Your task to perform on an android device: Show the shopping cart on target.com. Image 0: 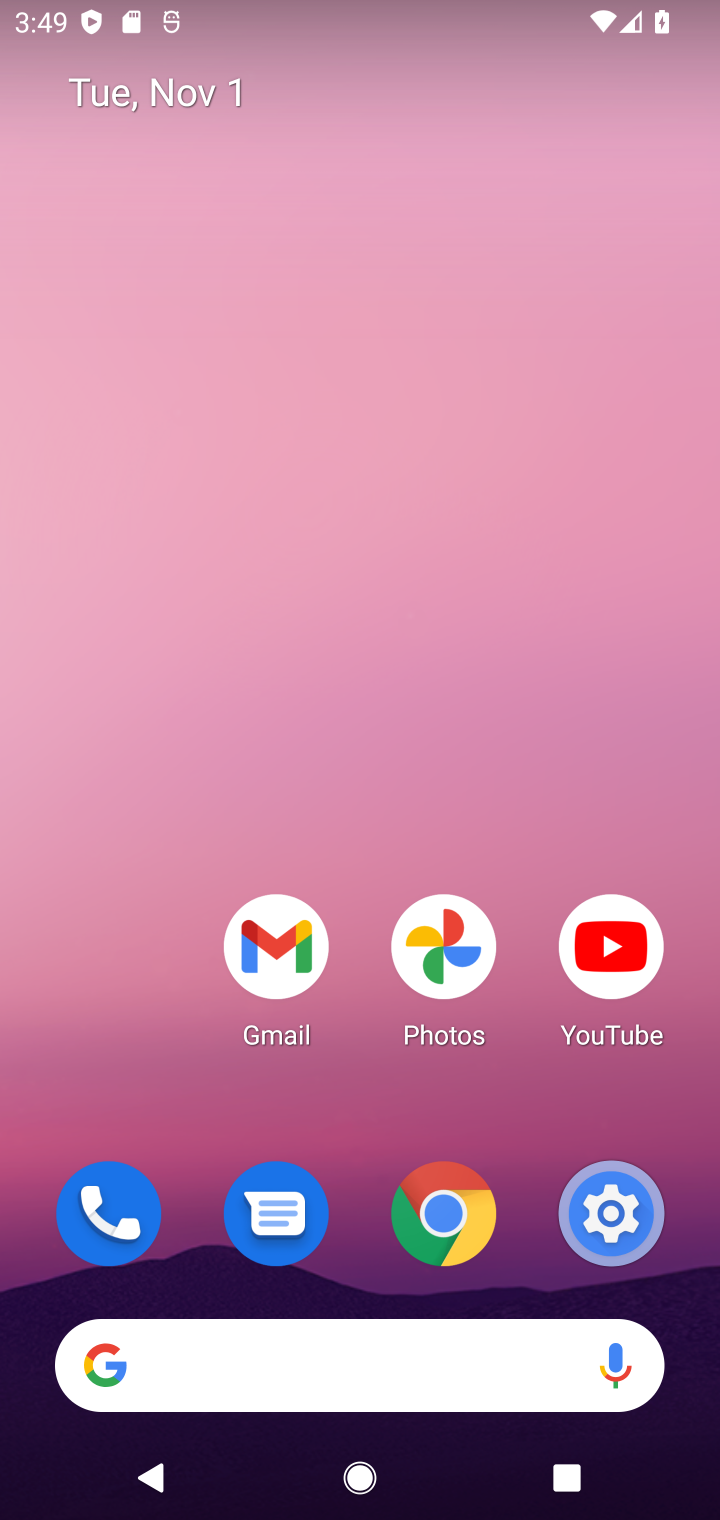
Step 0: click (324, 1367)
Your task to perform on an android device: Show the shopping cart on target.com. Image 1: 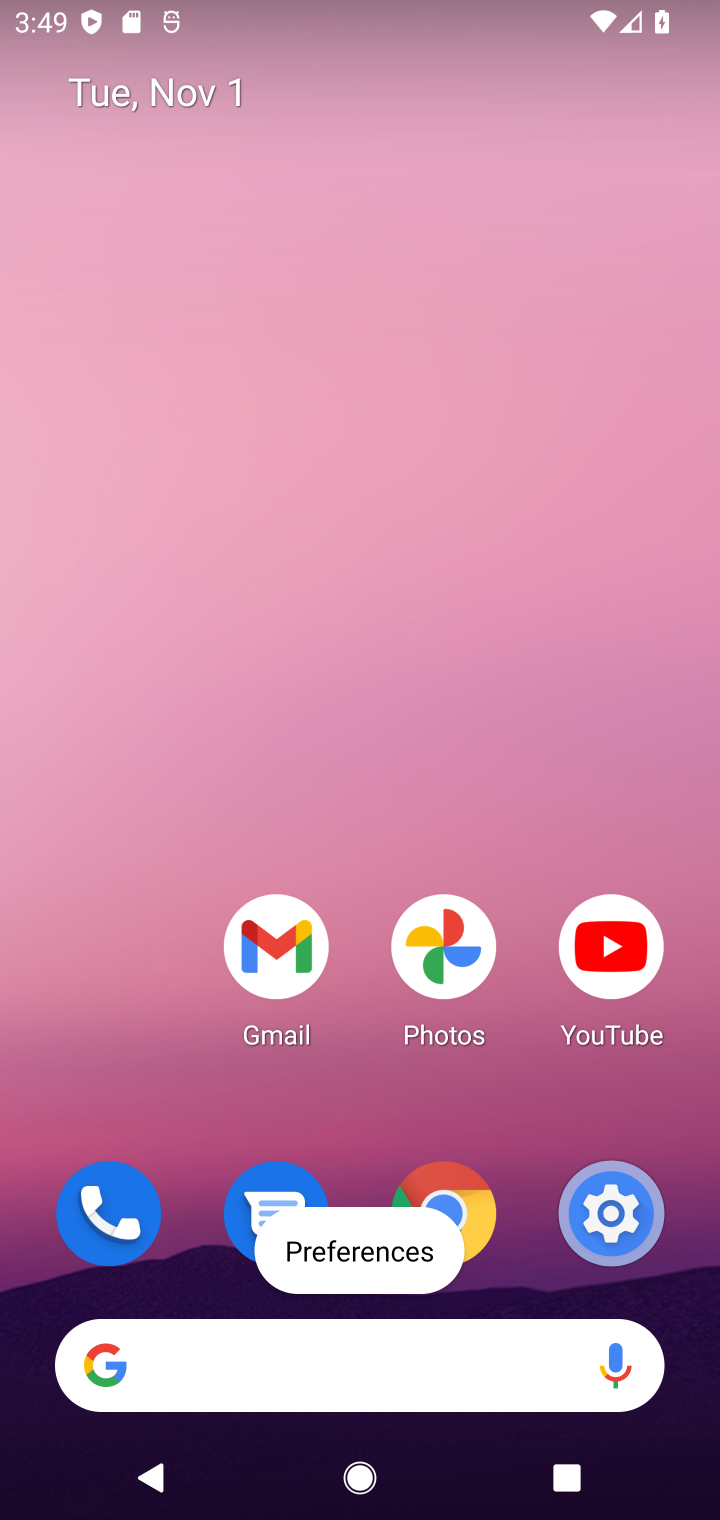
Step 1: click (319, 1364)
Your task to perform on an android device: Show the shopping cart on target.com. Image 2: 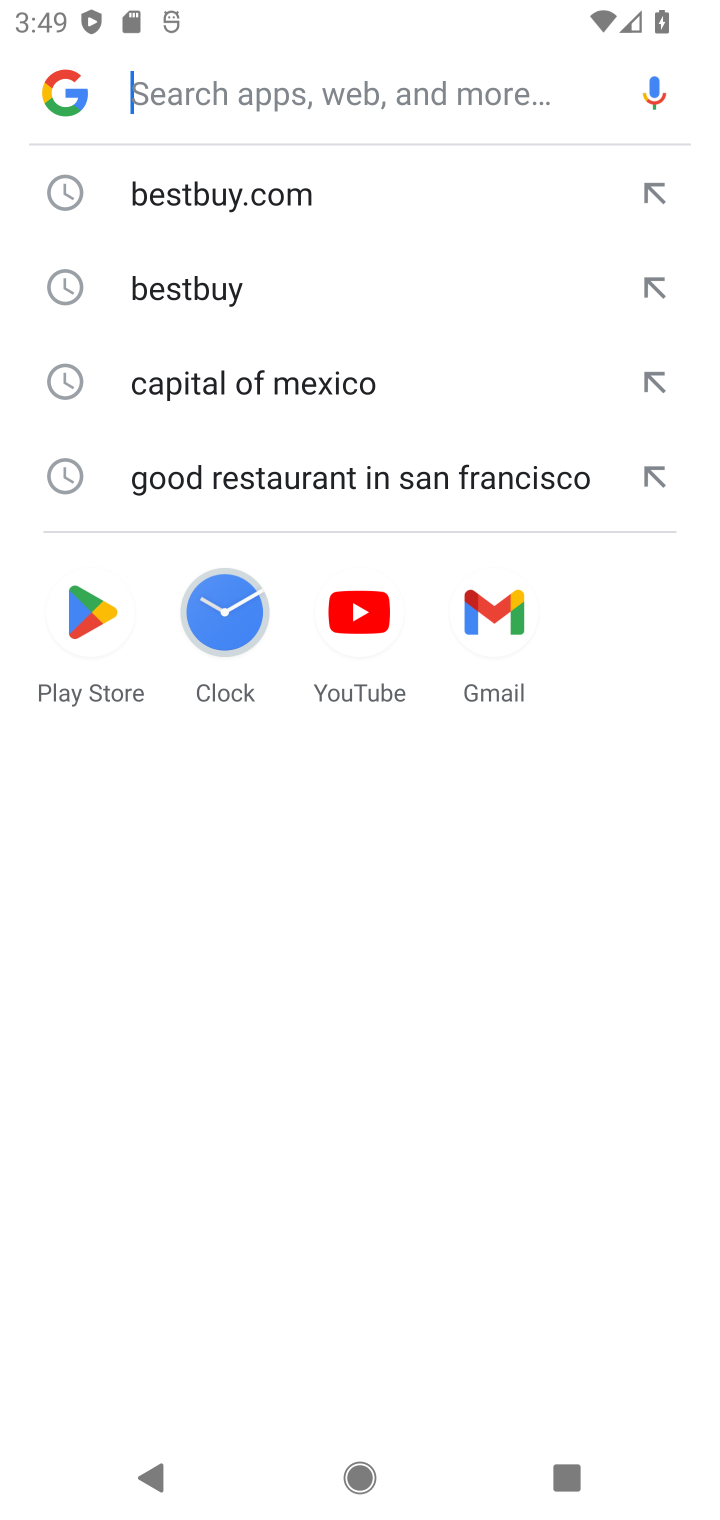
Step 2: click (300, 1380)
Your task to perform on an android device: Show the shopping cart on target.com. Image 3: 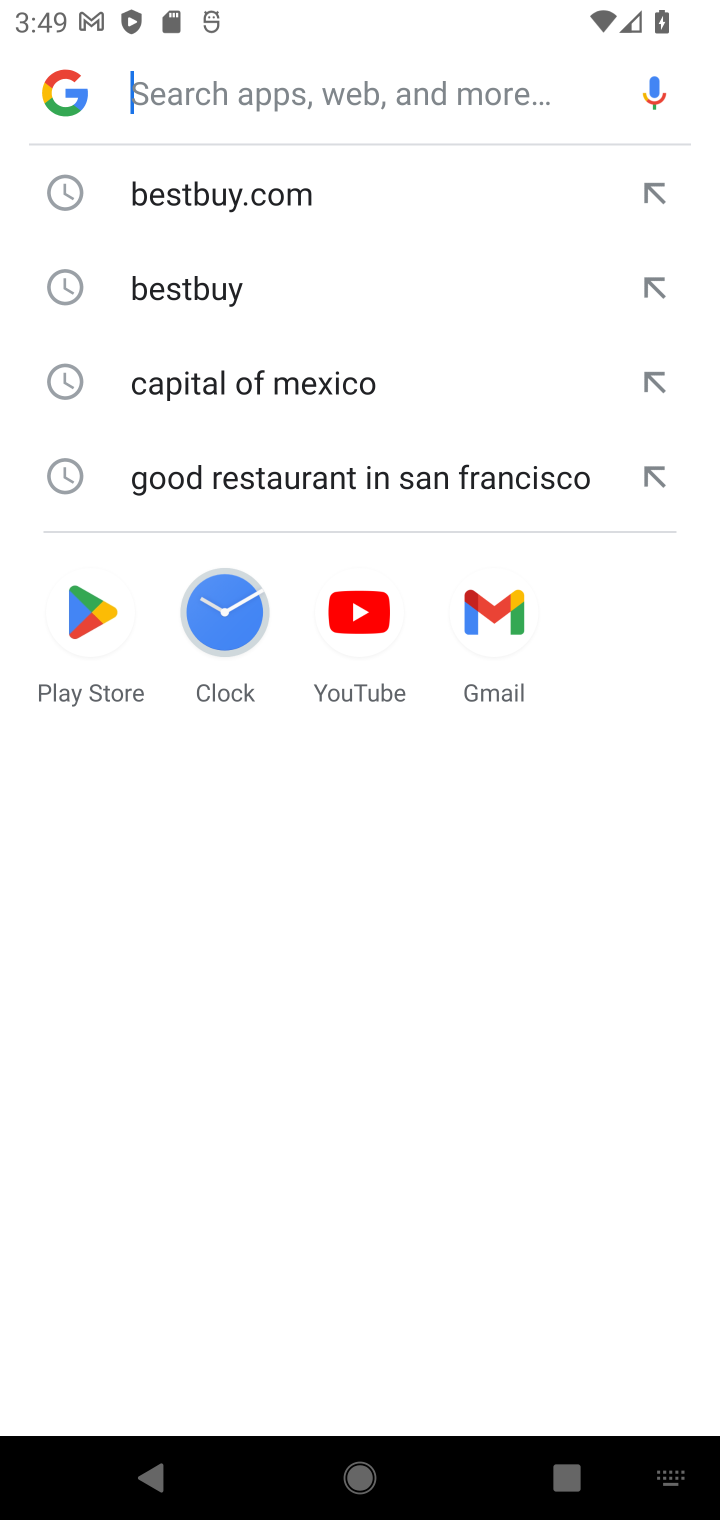
Step 3: type "target.com."
Your task to perform on an android device: Show the shopping cart on target.com. Image 4: 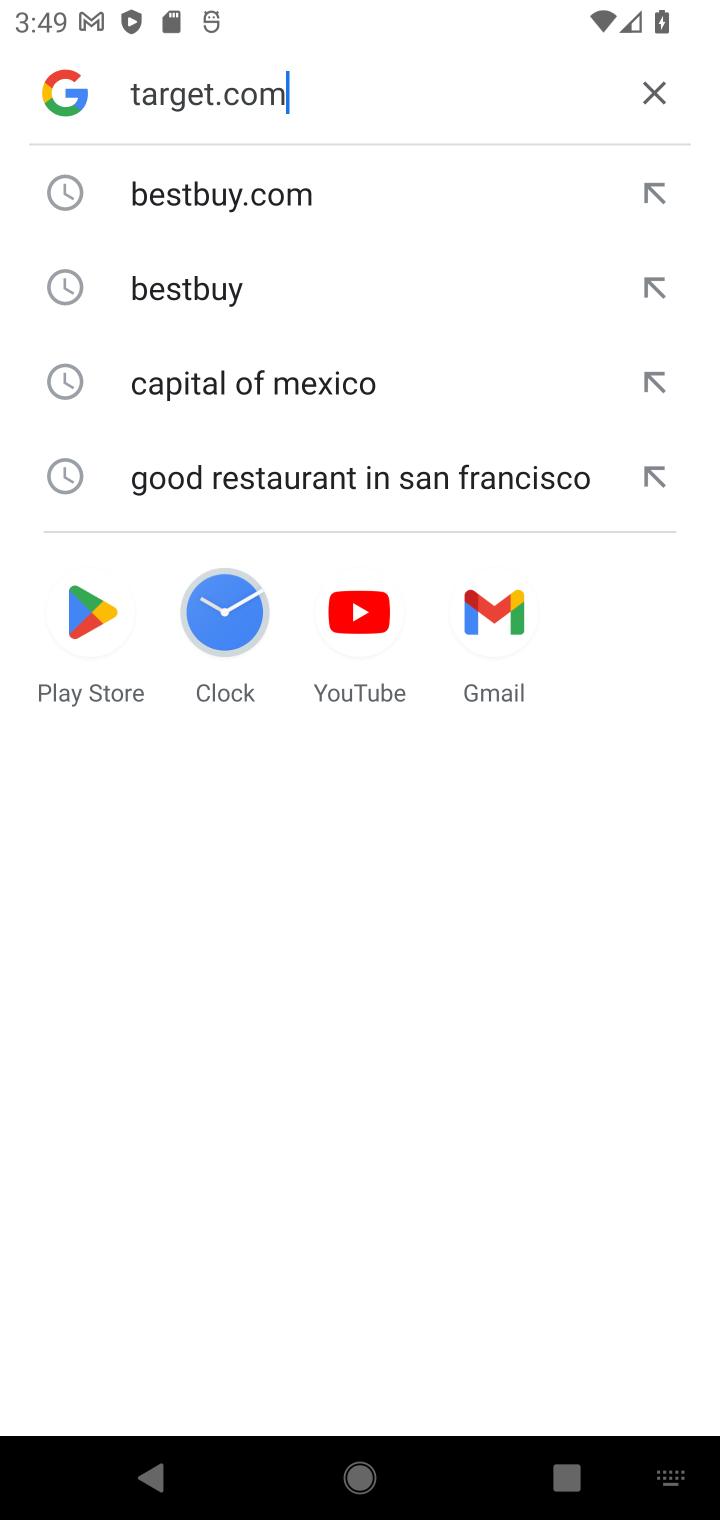
Step 4: type ""
Your task to perform on an android device: Show the shopping cart on target.com. Image 5: 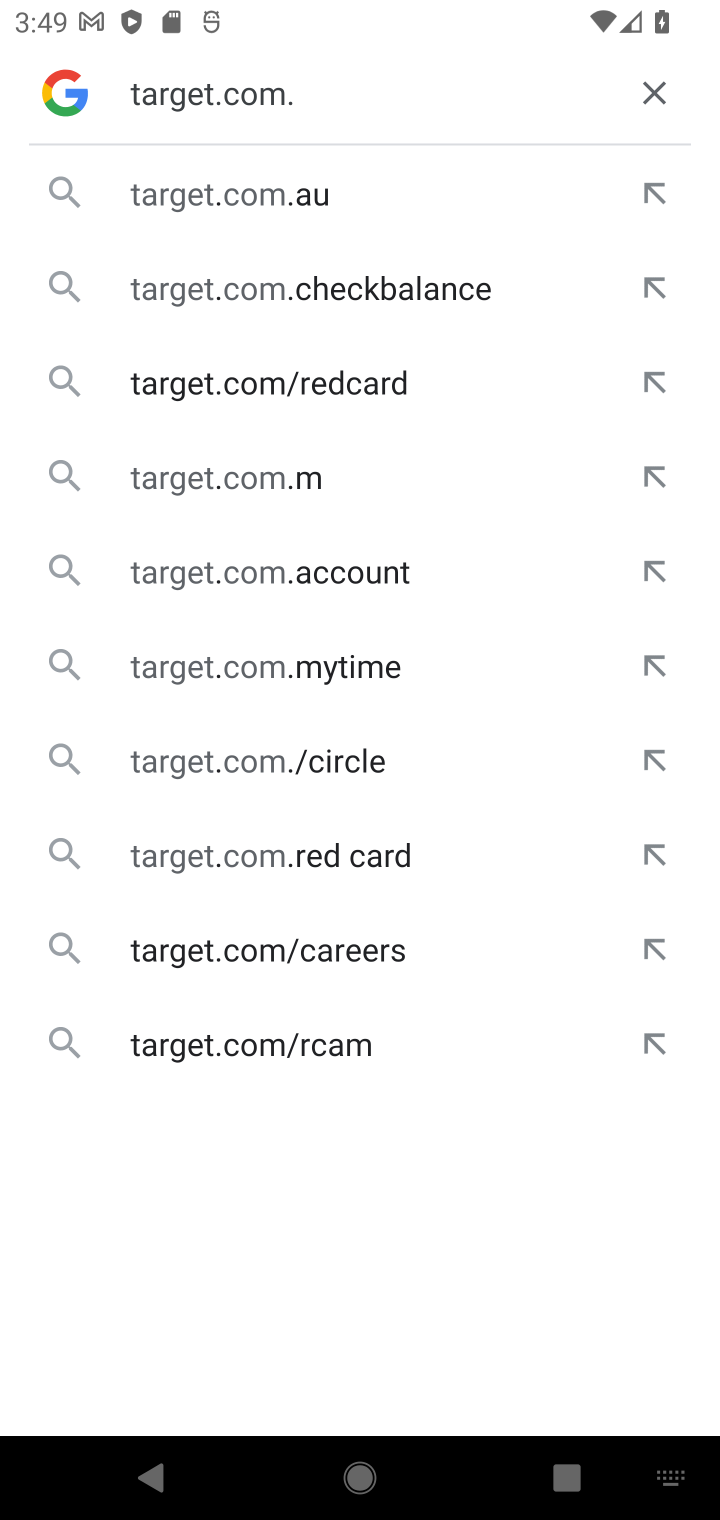
Step 5: press enter
Your task to perform on an android device: Show the shopping cart on target.com. Image 6: 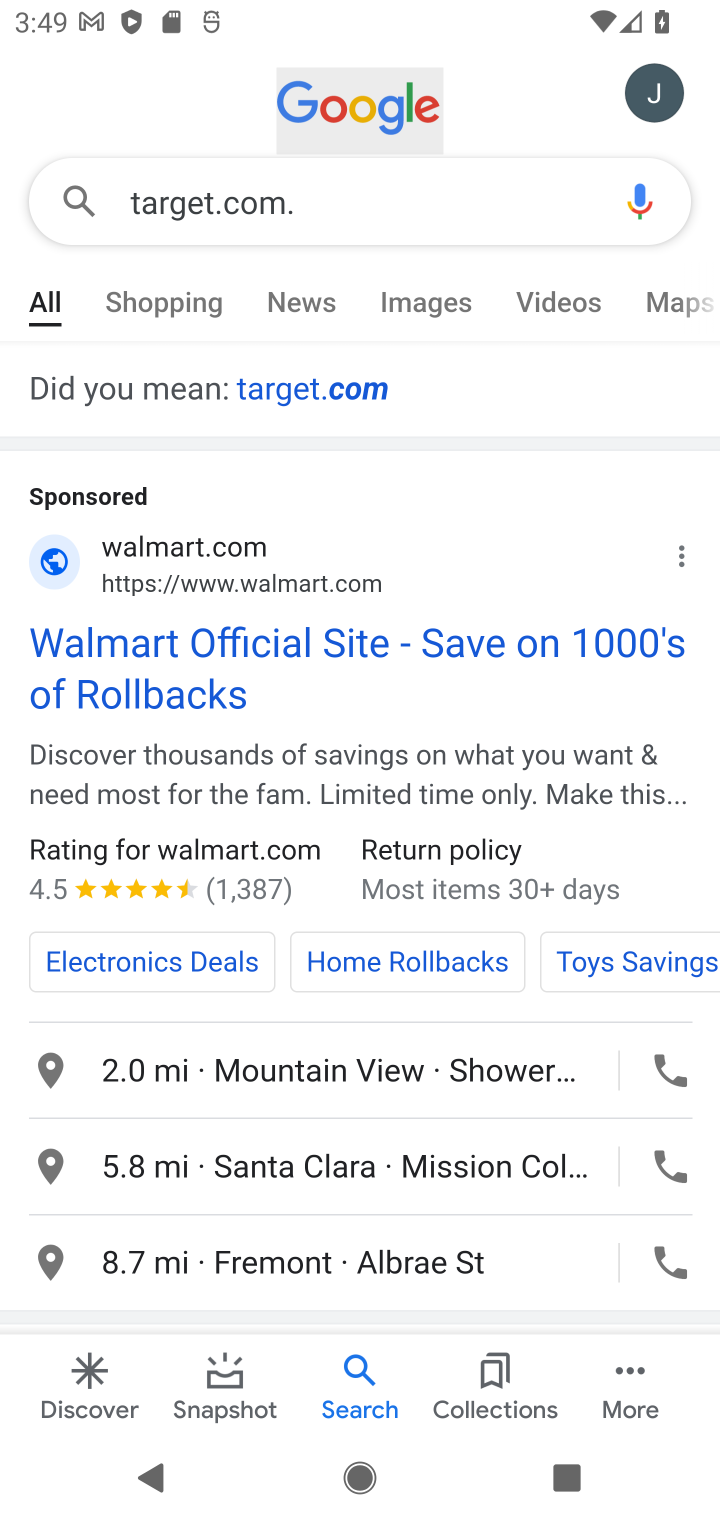
Step 6: click (225, 627)
Your task to perform on an android device: Show the shopping cart on target.com. Image 7: 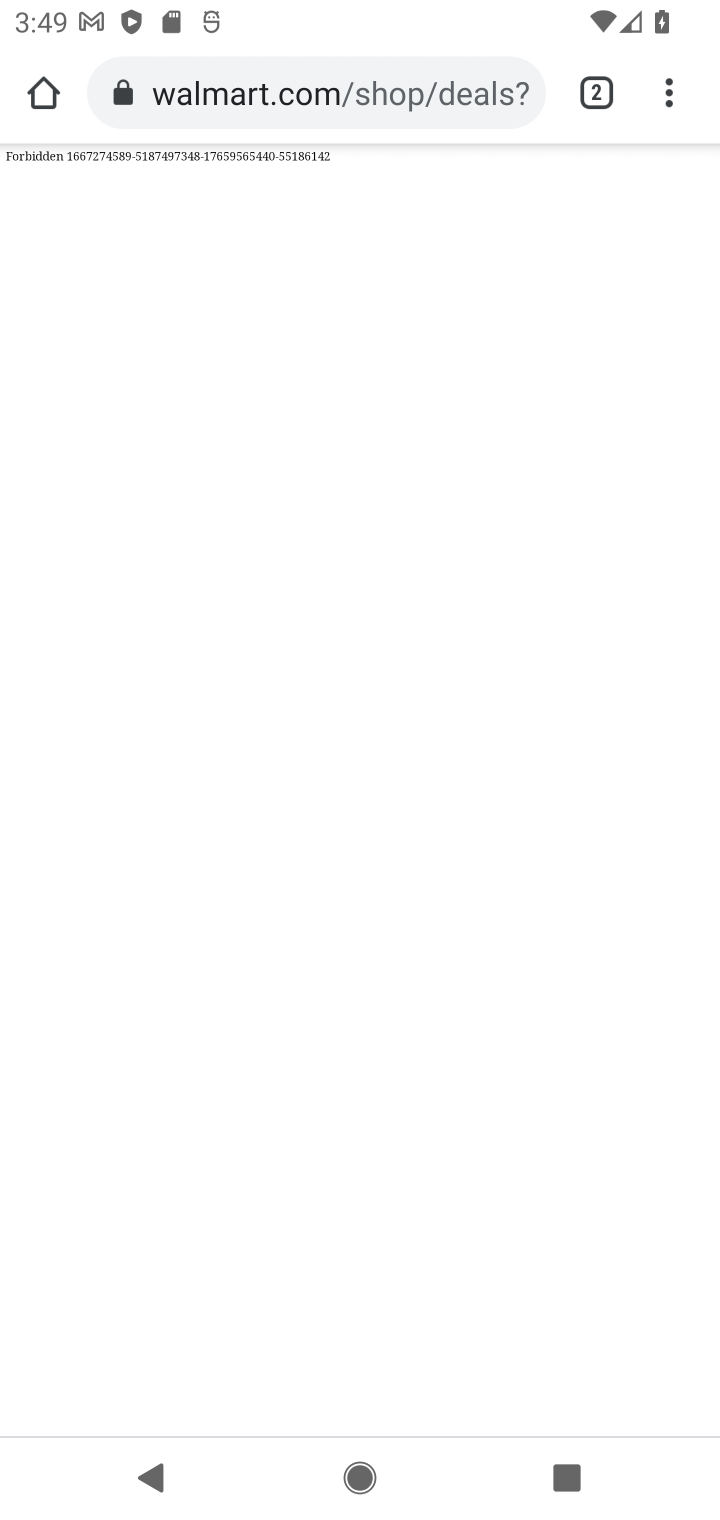
Step 7: click (338, 216)
Your task to perform on an android device: Show the shopping cart on target.com. Image 8: 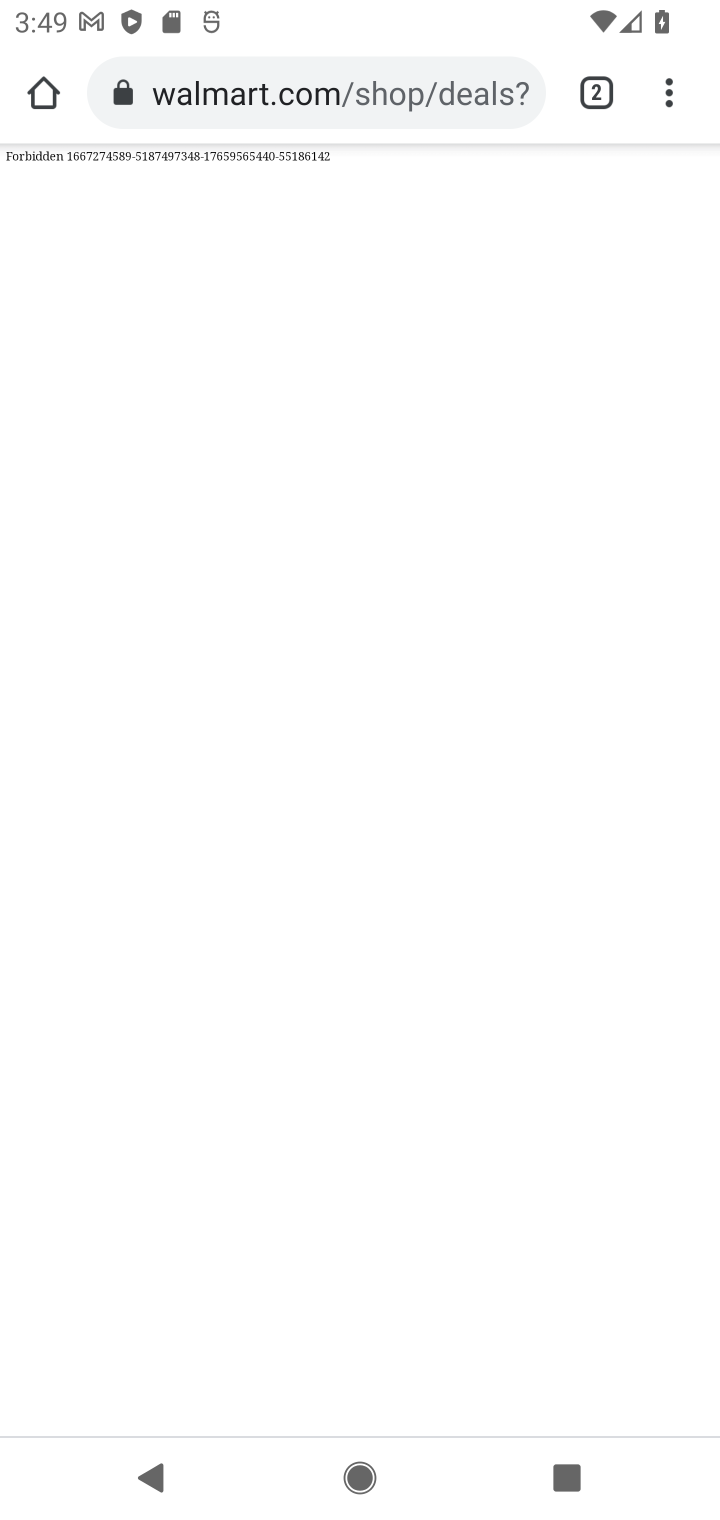
Step 8: press back button
Your task to perform on an android device: Show the shopping cart on target.com. Image 9: 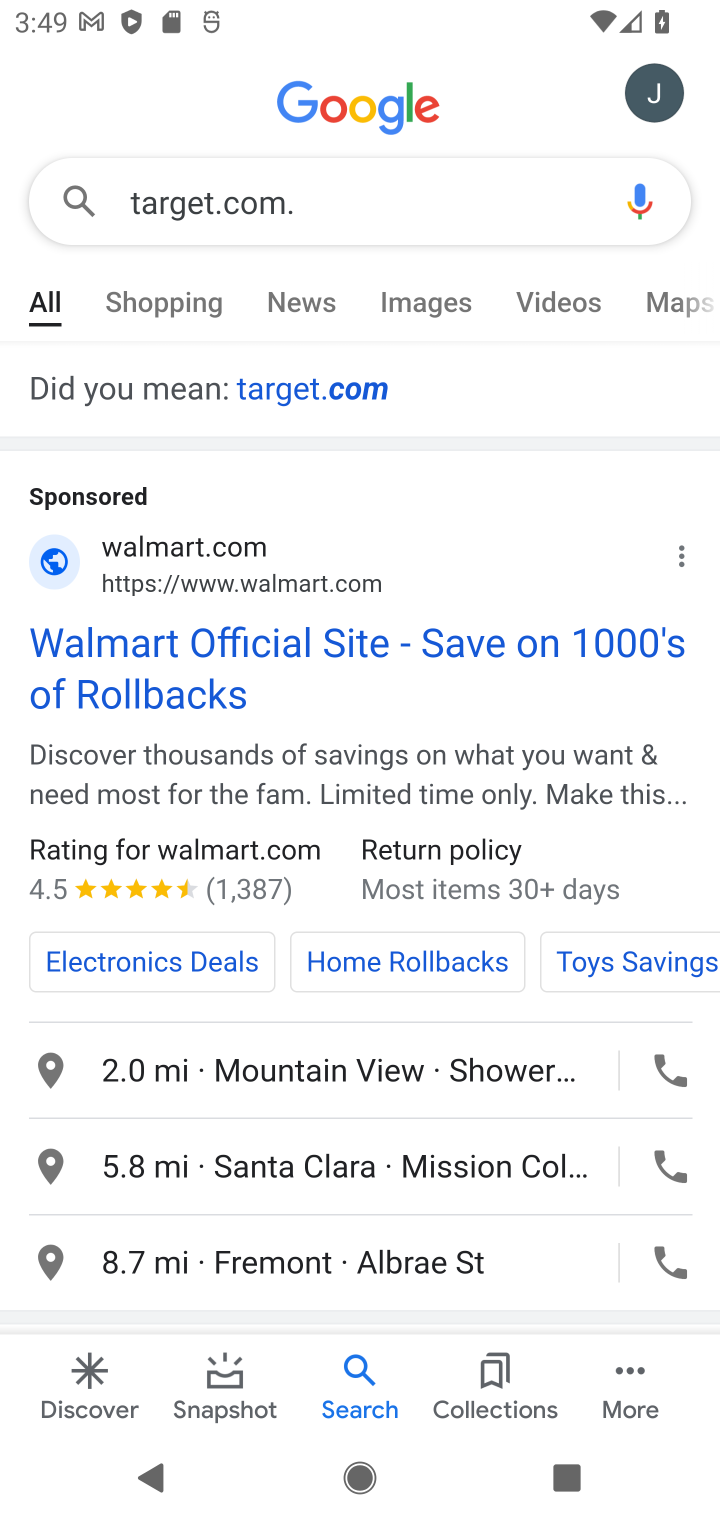
Step 9: click (354, 207)
Your task to perform on an android device: Show the shopping cart on target.com. Image 10: 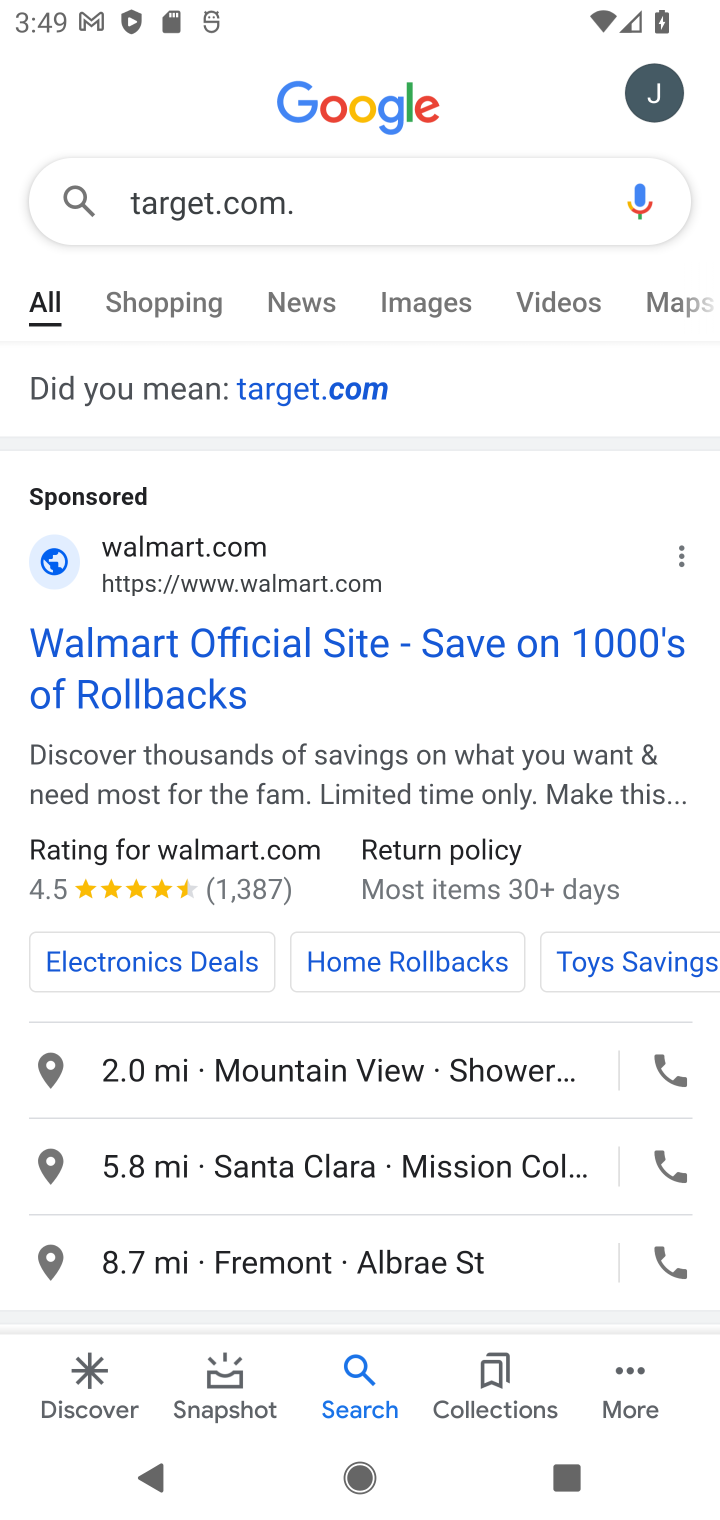
Step 10: click (381, 521)
Your task to perform on an android device: Show the shopping cart on target.com. Image 11: 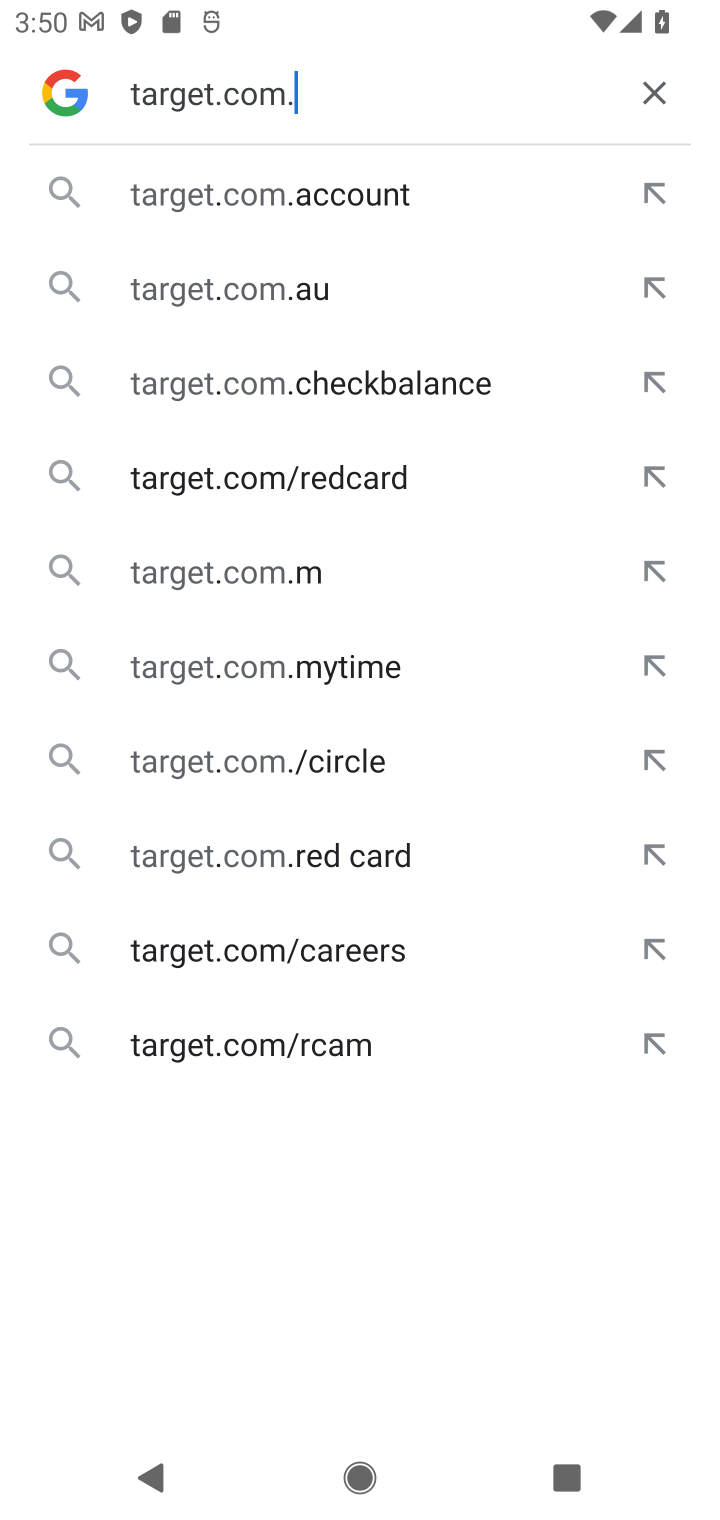
Step 11: type "target.com"
Your task to perform on an android device: Show the shopping cart on target.com. Image 12: 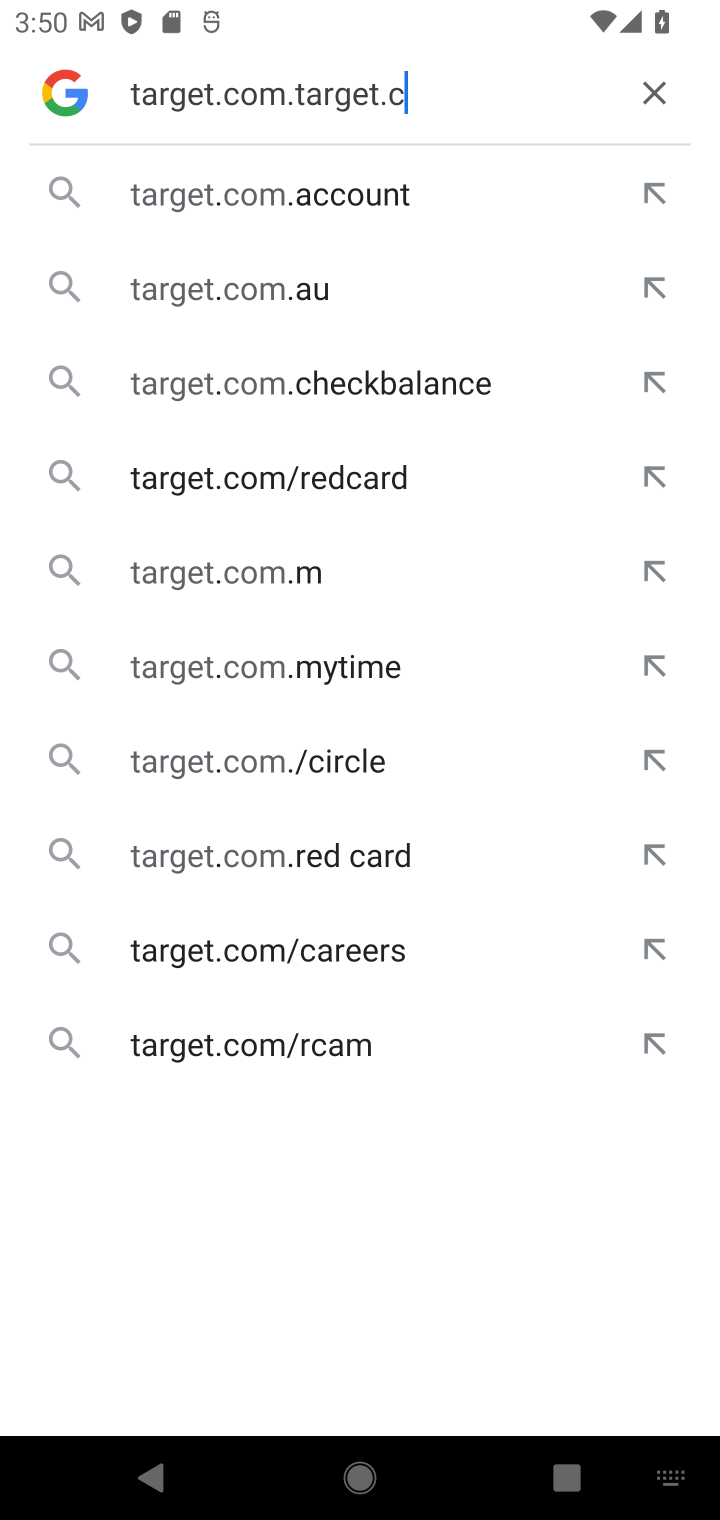
Step 12: type ""
Your task to perform on an android device: Show the shopping cart on target.com. Image 13: 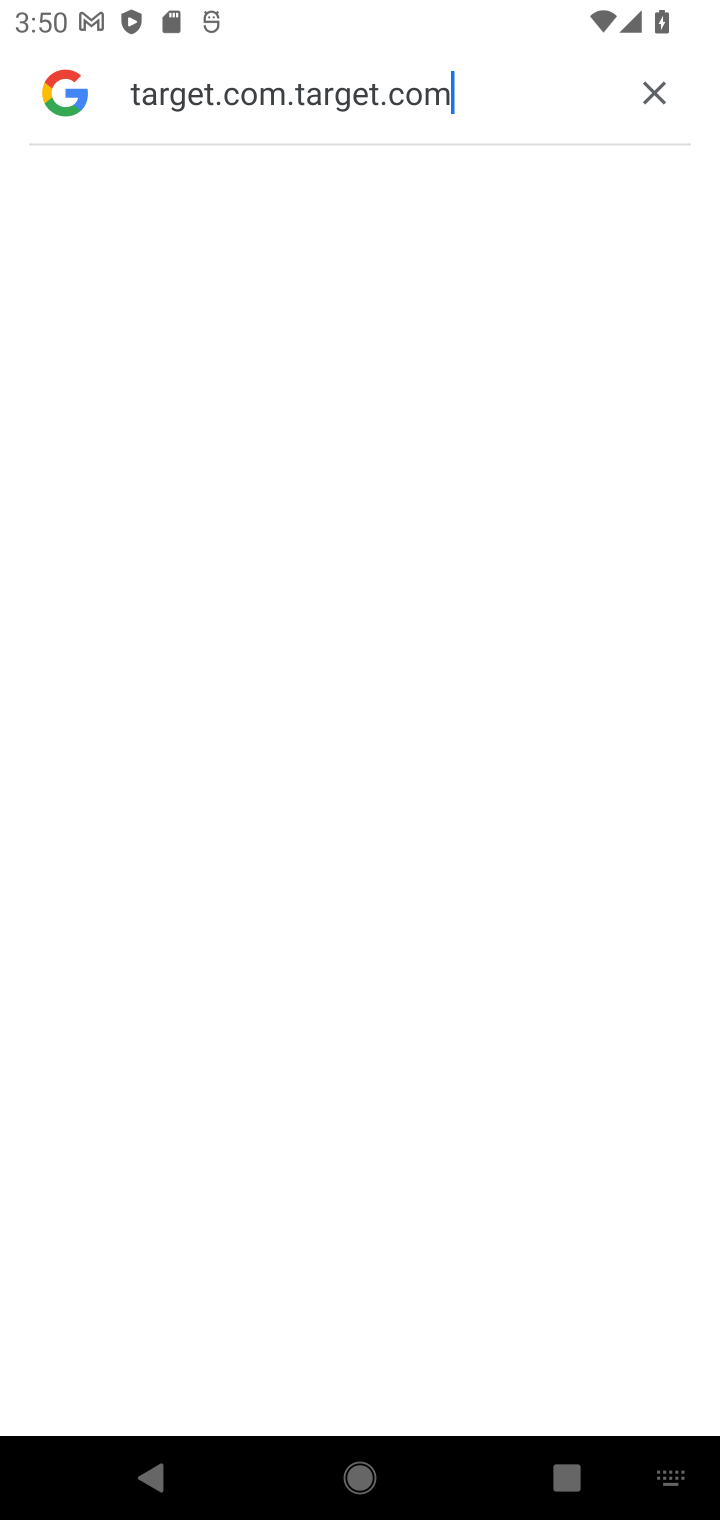
Step 13: click (295, 97)
Your task to perform on an android device: Show the shopping cart on target.com. Image 14: 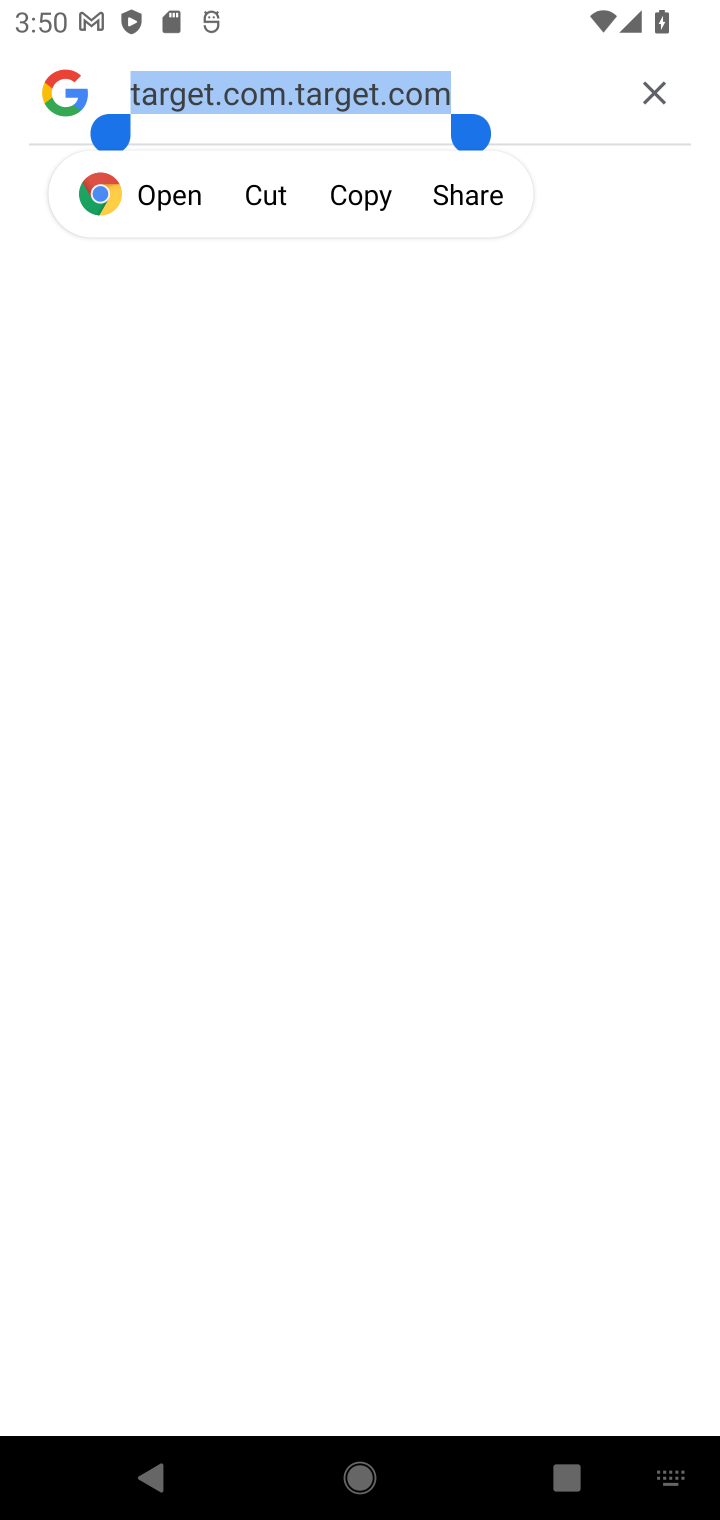
Step 14: press enter
Your task to perform on an android device: Show the shopping cart on target.com. Image 15: 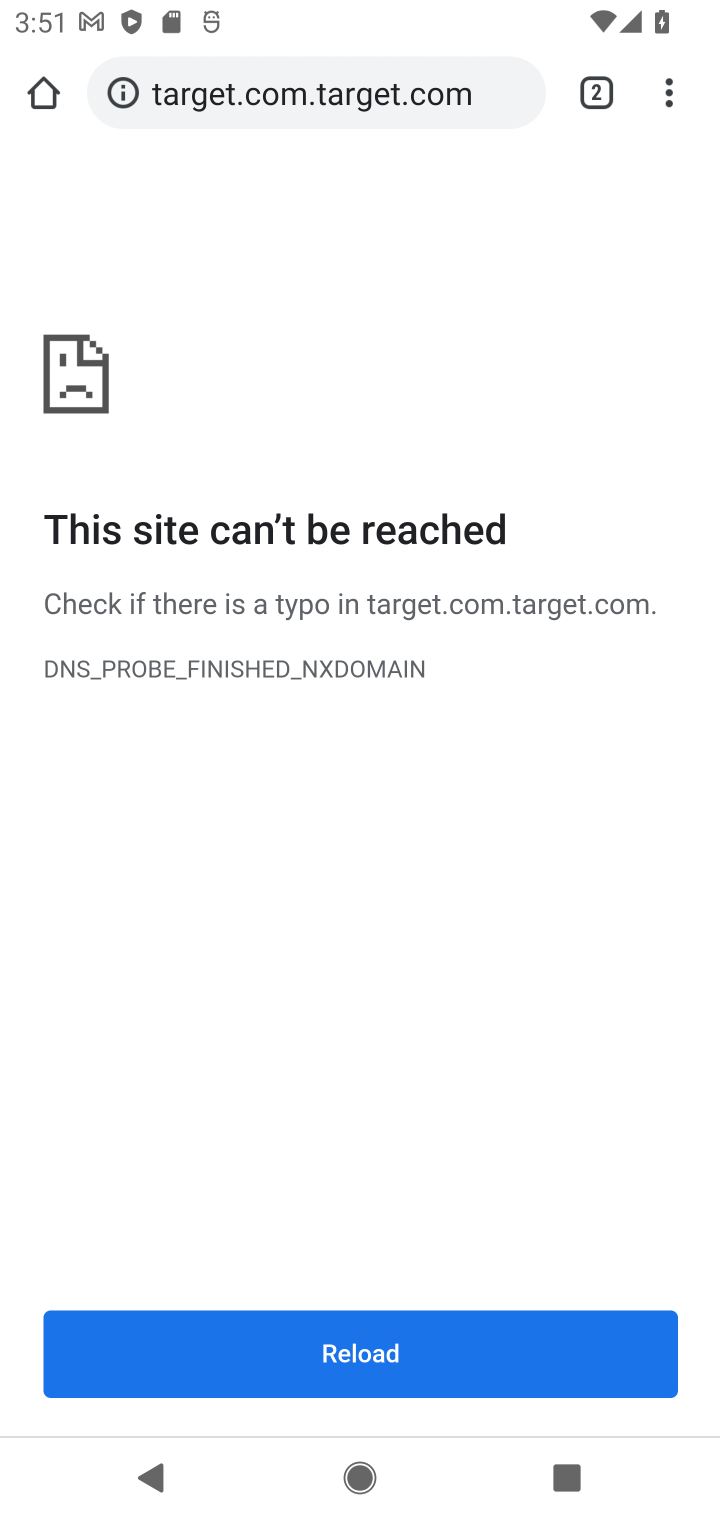
Step 15: type "target.com"
Your task to perform on an android device: Show the shopping cart on target.com. Image 16: 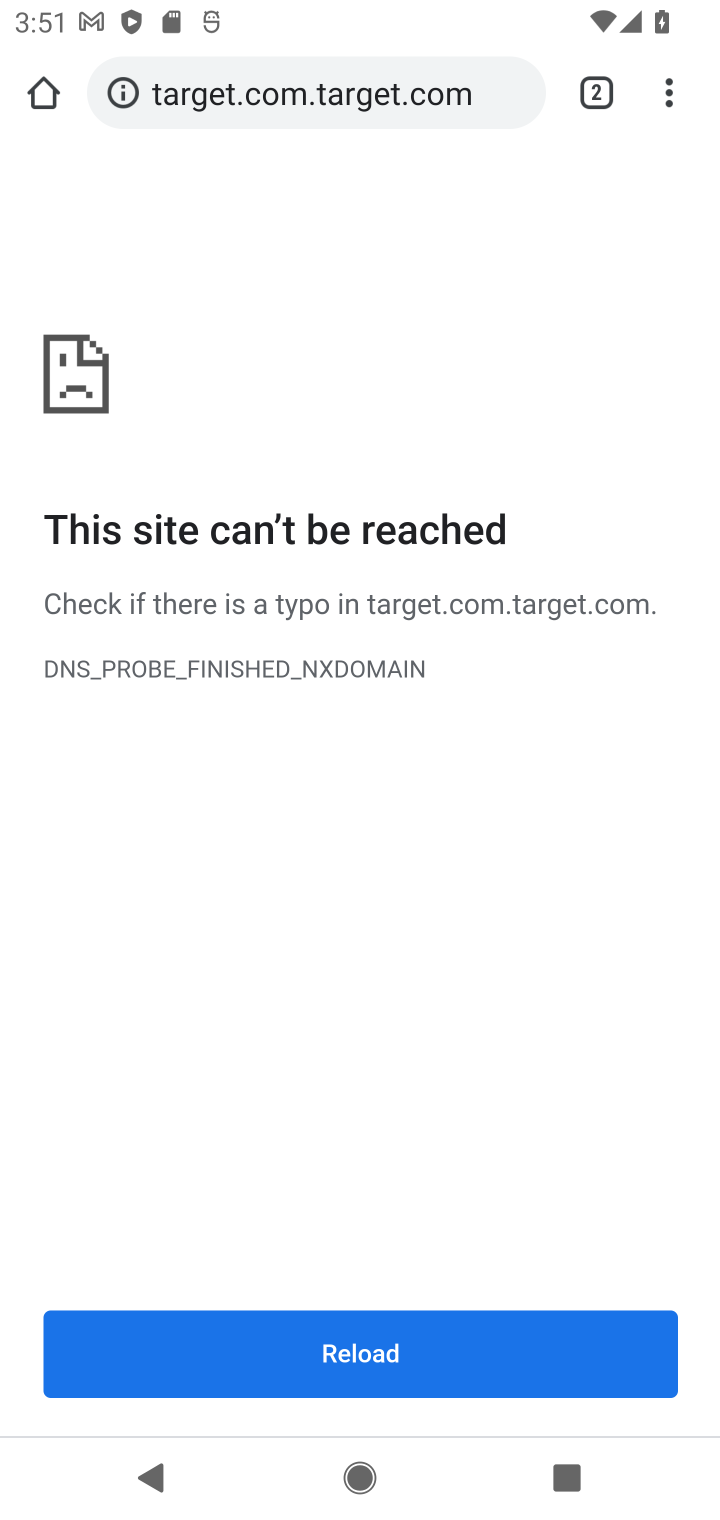
Step 16: type ""
Your task to perform on an android device: Show the shopping cart on target.com. Image 17: 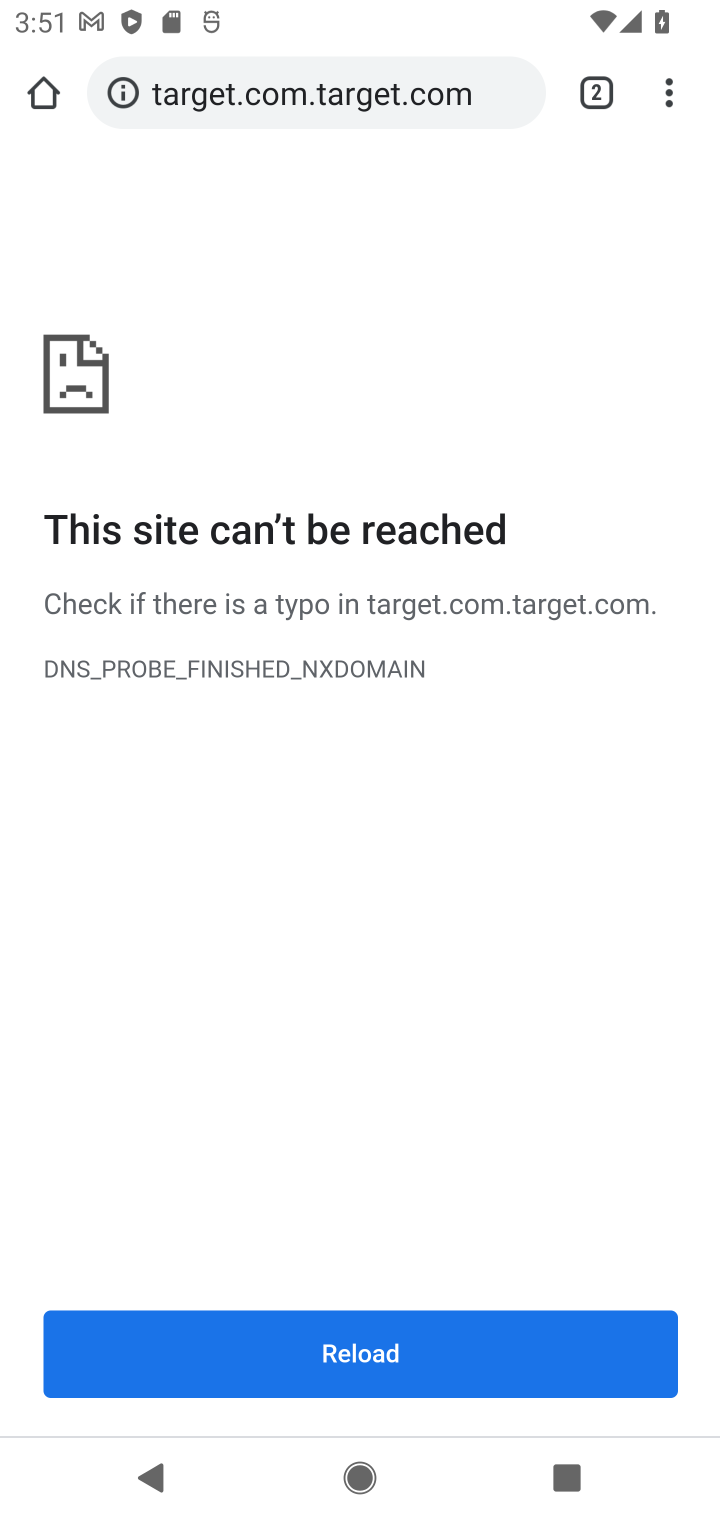
Step 17: click (313, 100)
Your task to perform on an android device: Show the shopping cart on target.com. Image 18: 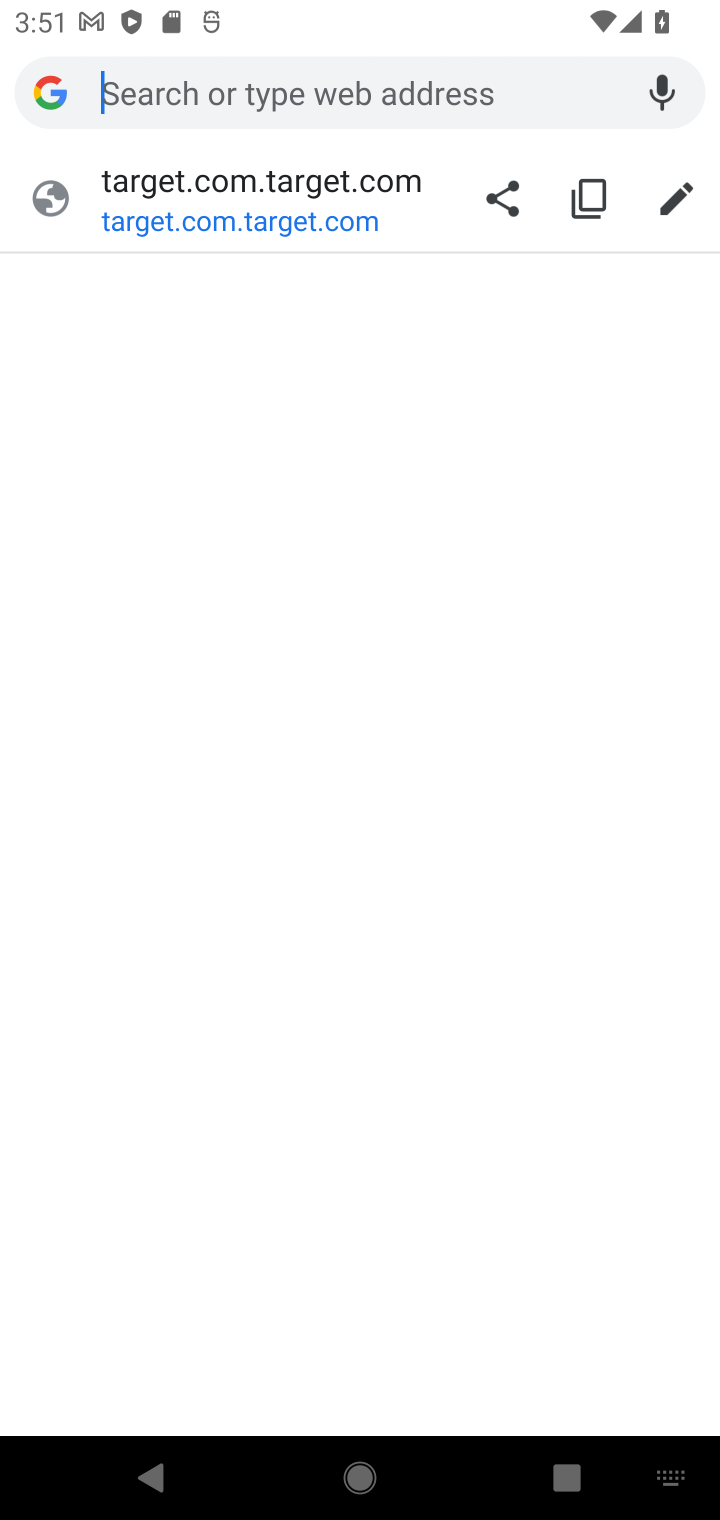
Step 18: type "target.com"
Your task to perform on an android device: Show the shopping cart on target.com. Image 19: 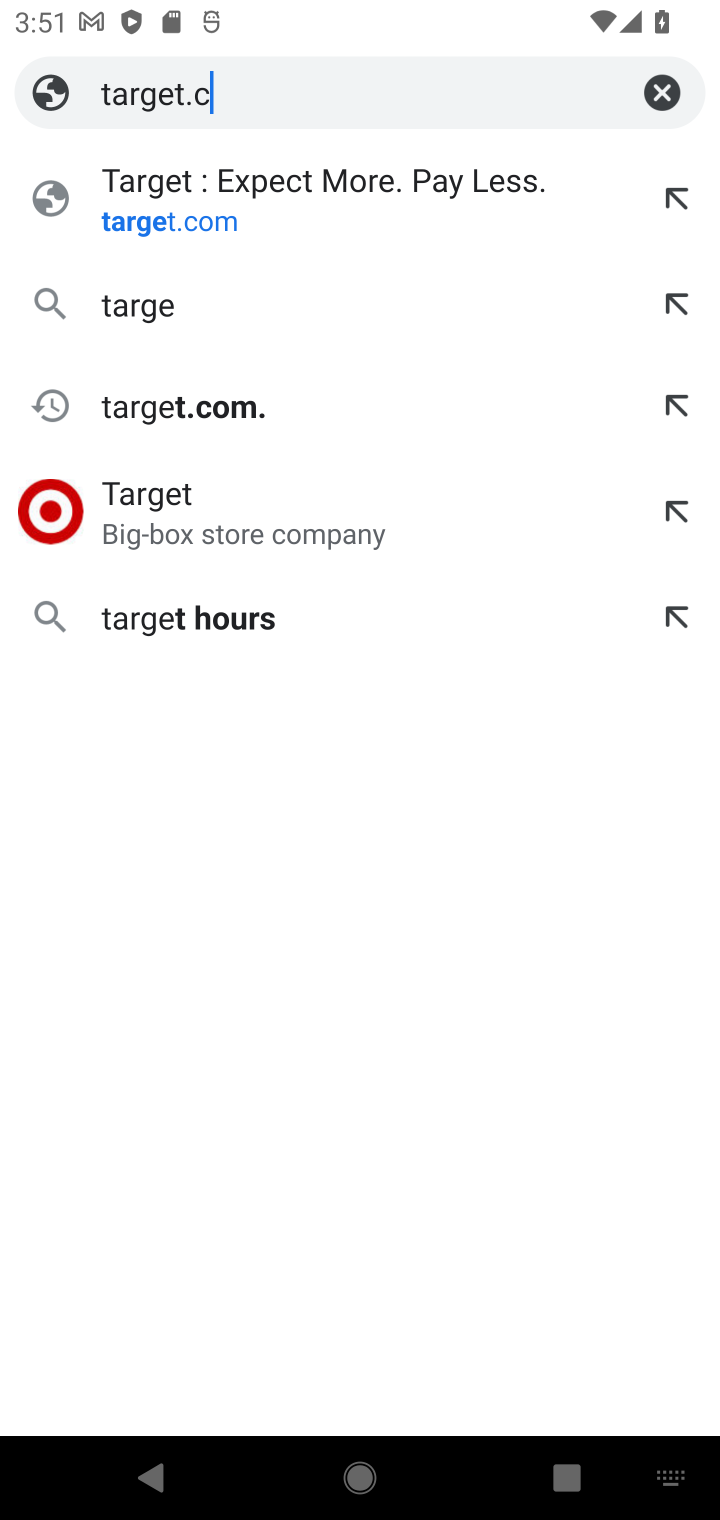
Step 19: type ""
Your task to perform on an android device: Show the shopping cart on target.com. Image 20: 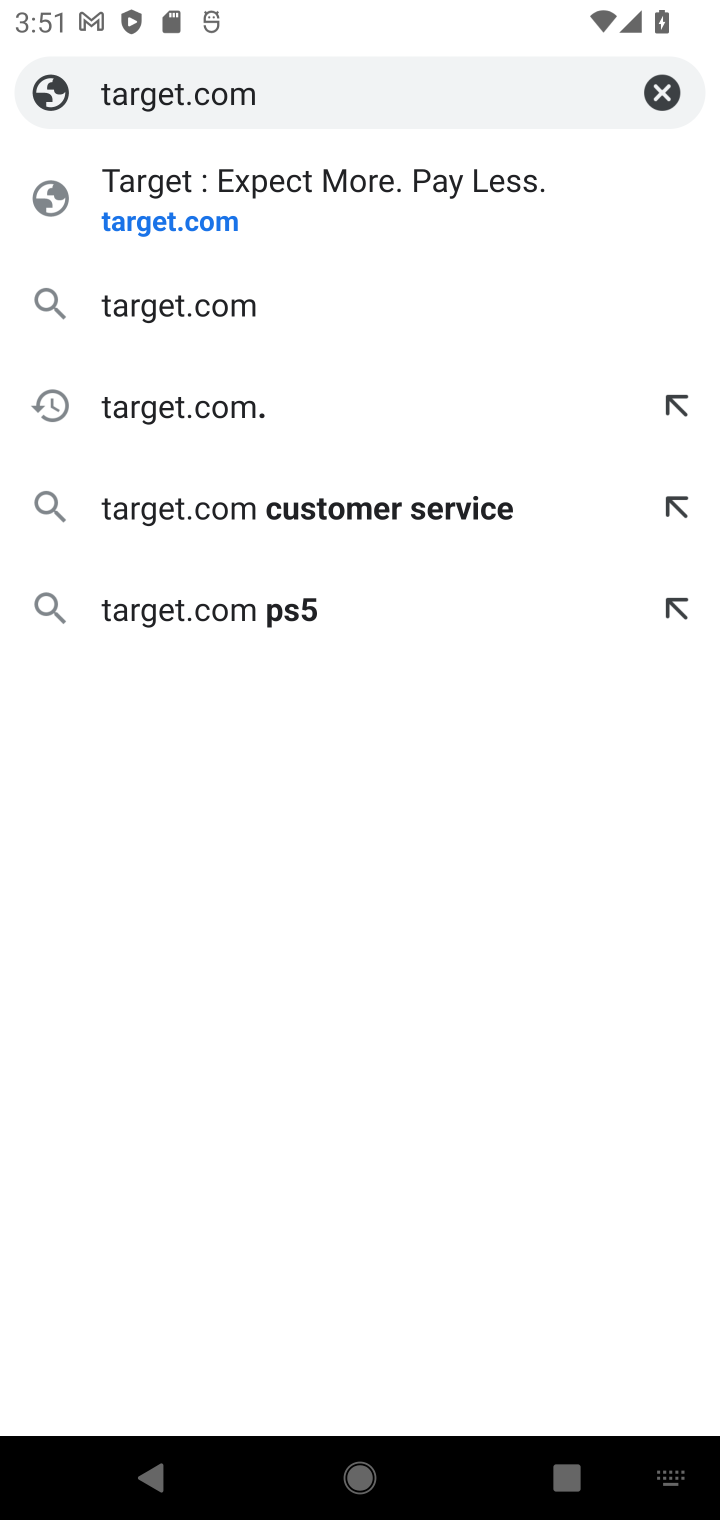
Step 20: click (277, 208)
Your task to perform on an android device: Show the shopping cart on target.com. Image 21: 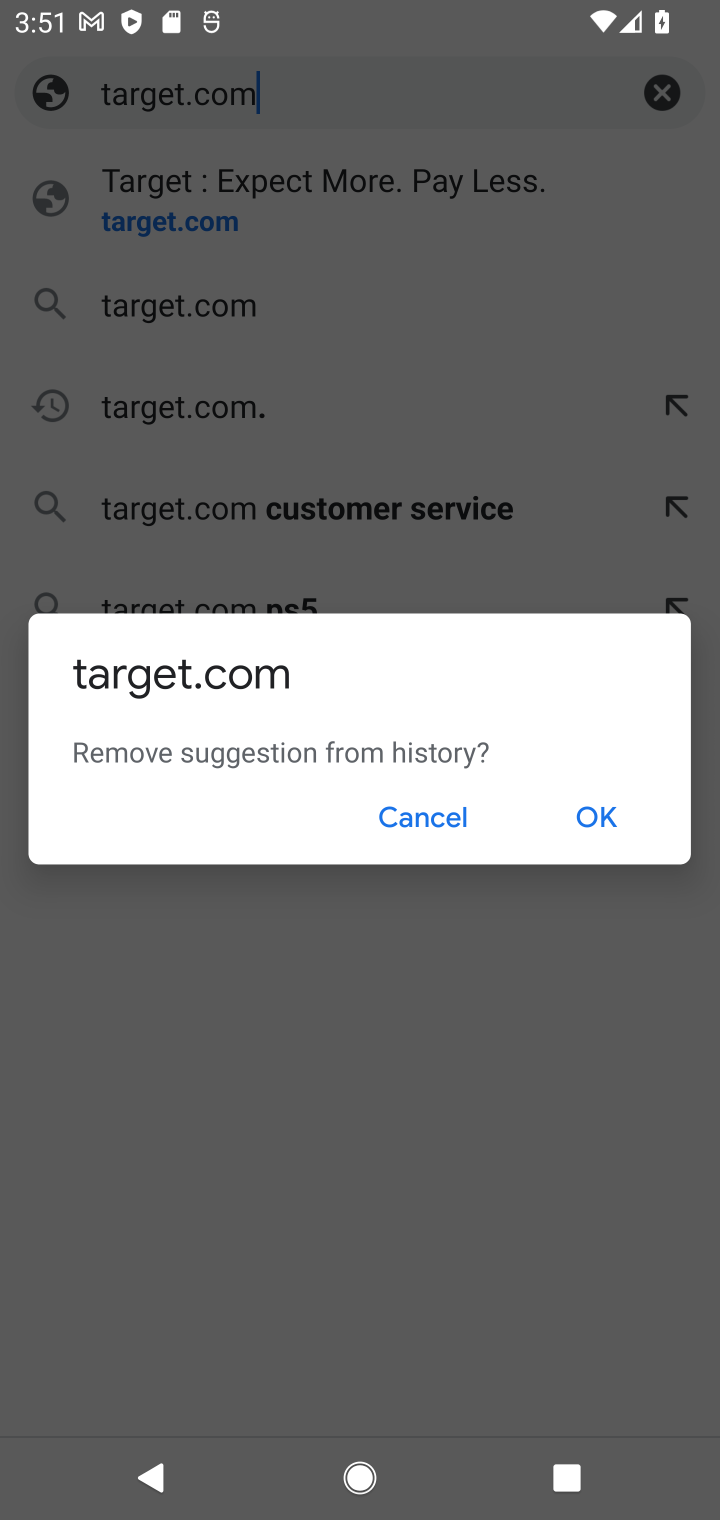
Step 21: click (605, 820)
Your task to perform on an android device: Show the shopping cart on target.com. Image 22: 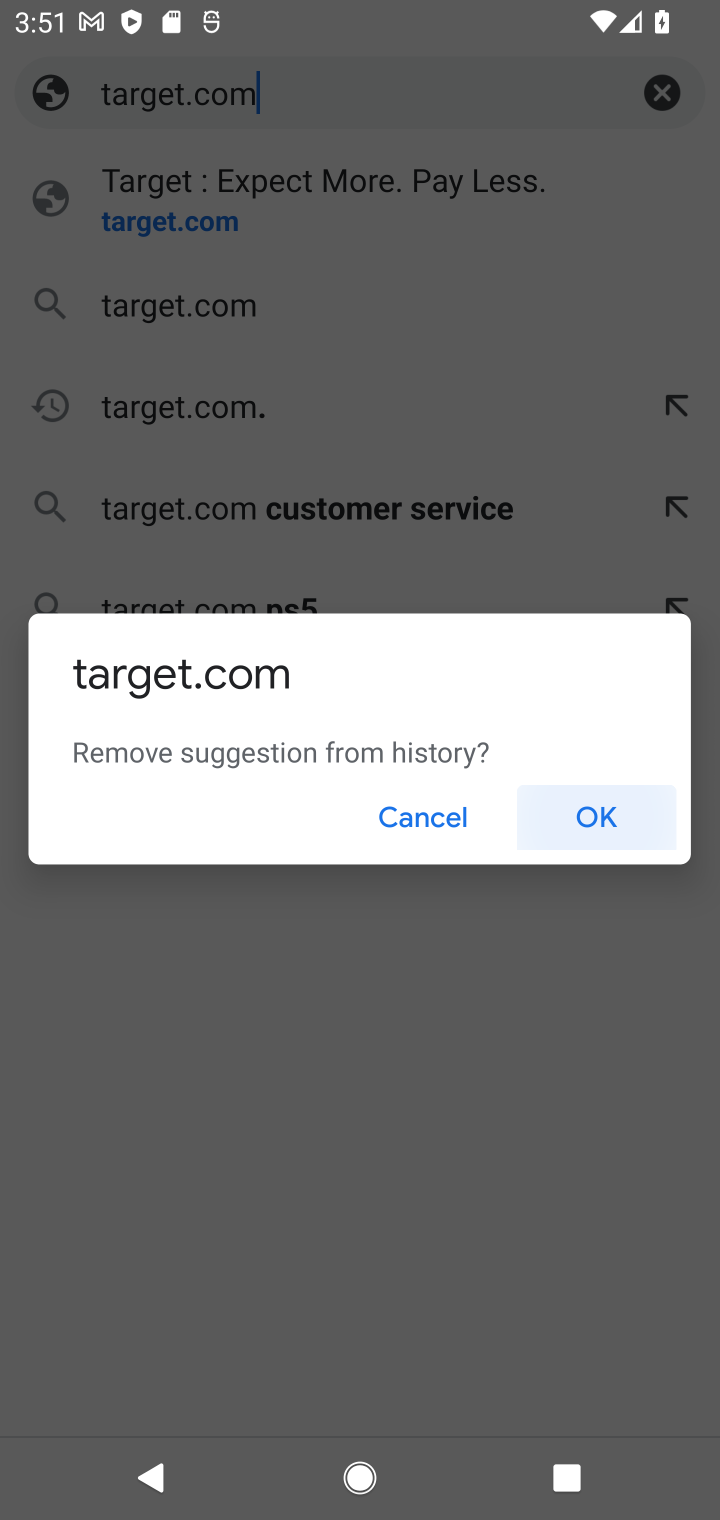
Step 22: click (605, 820)
Your task to perform on an android device: Show the shopping cart on target.com. Image 23: 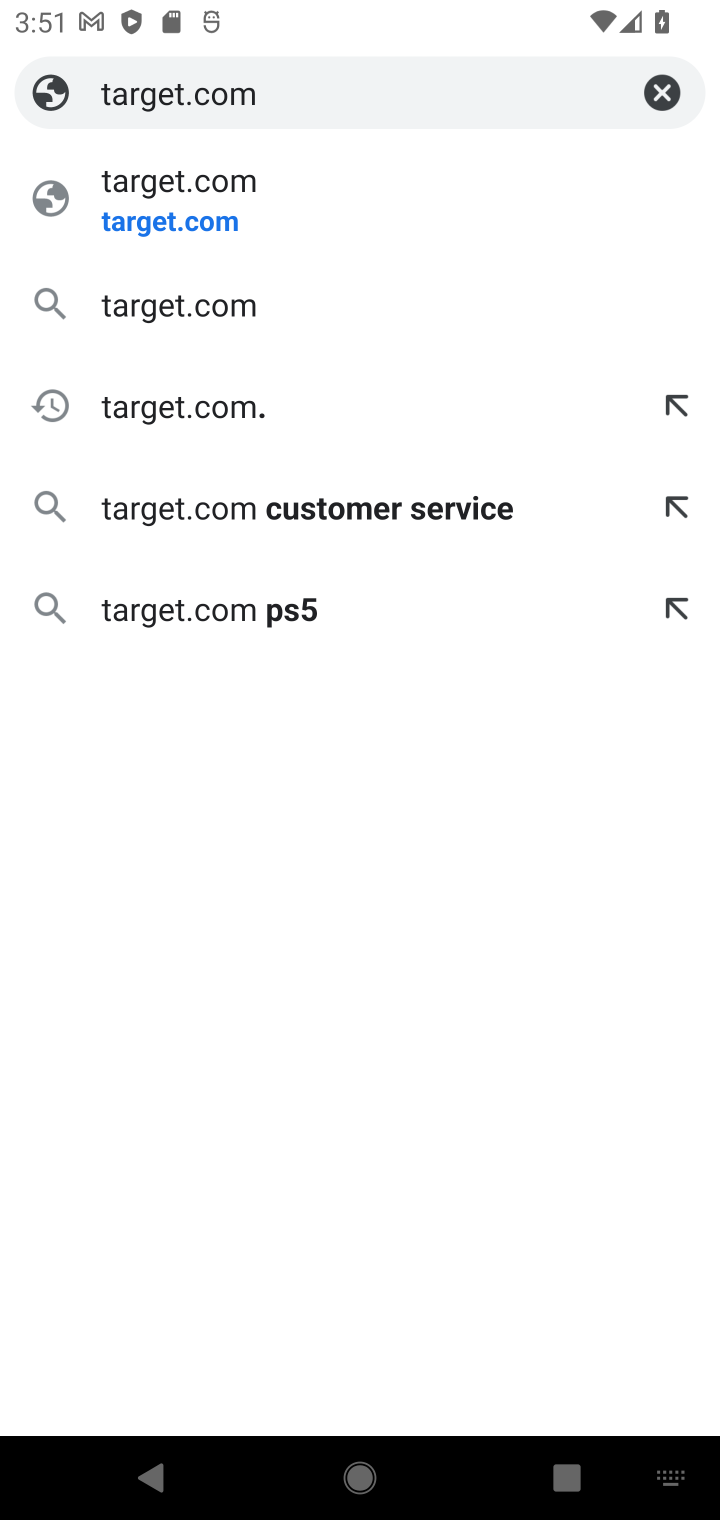
Step 23: click (199, 216)
Your task to perform on an android device: Show the shopping cart on target.com. Image 24: 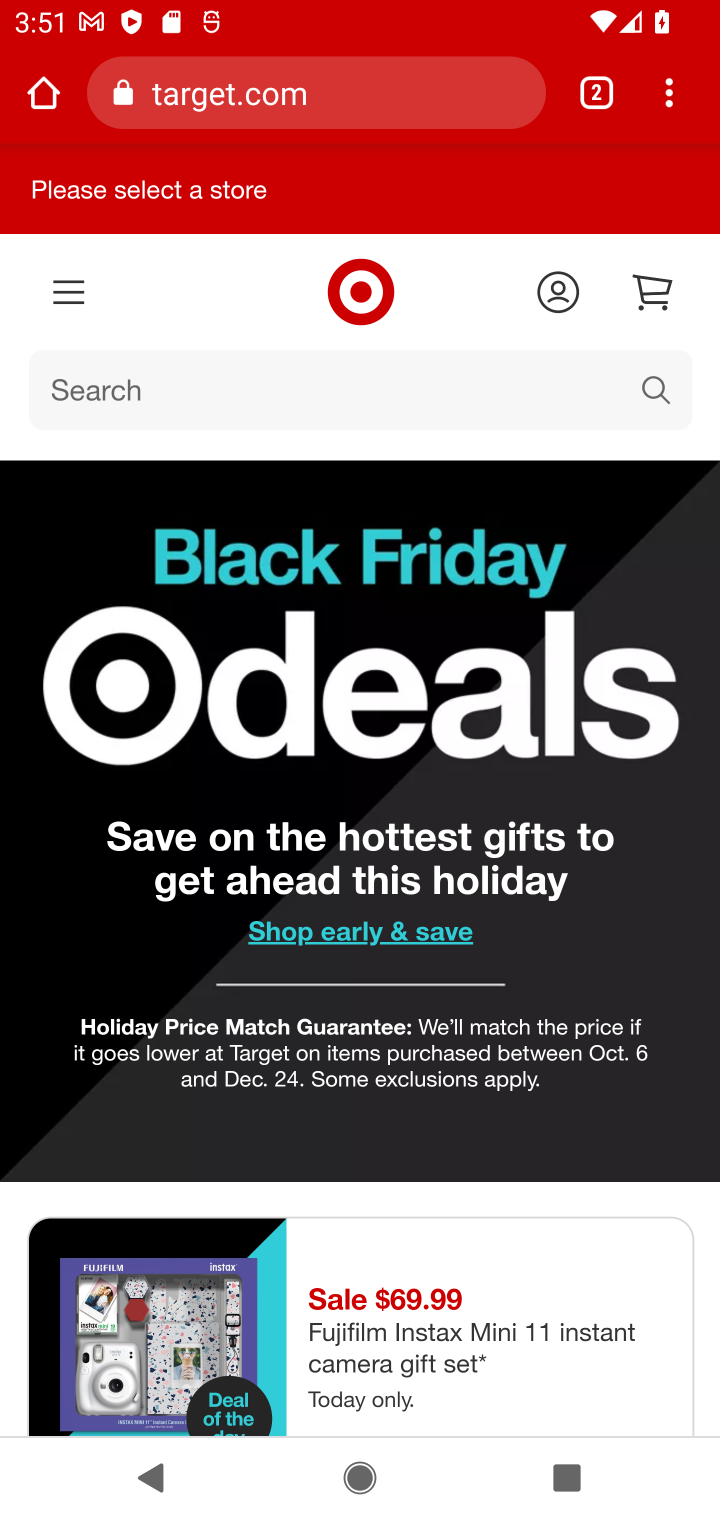
Step 24: task complete